Your task to perform on an android device: See recent photos Image 0: 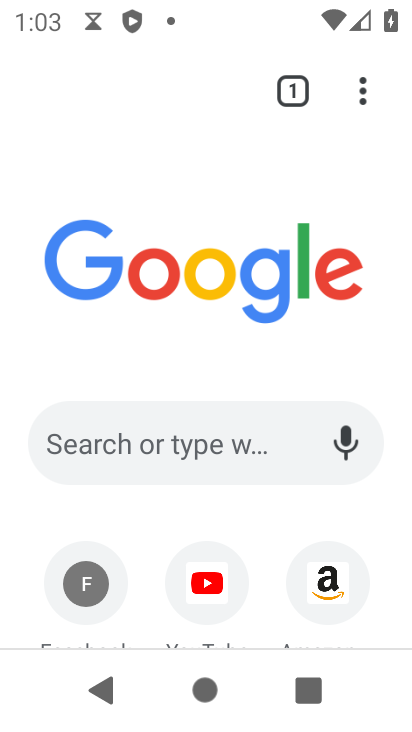
Step 0: press home button
Your task to perform on an android device: See recent photos Image 1: 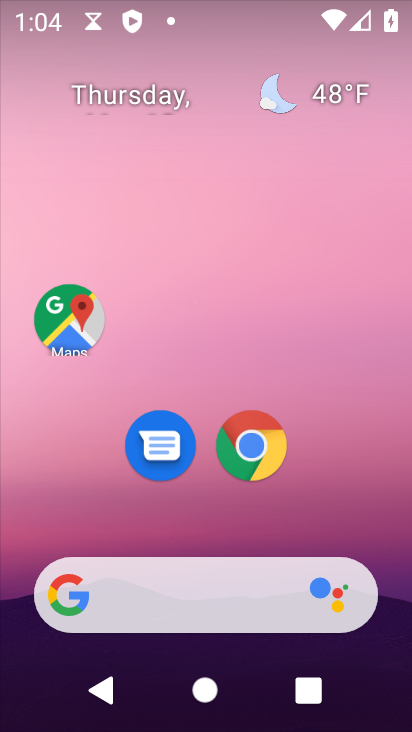
Step 1: drag from (314, 505) to (281, 77)
Your task to perform on an android device: See recent photos Image 2: 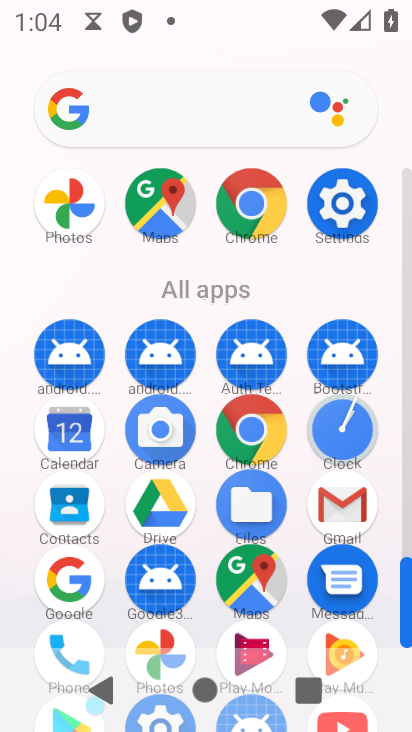
Step 2: click (168, 622)
Your task to perform on an android device: See recent photos Image 3: 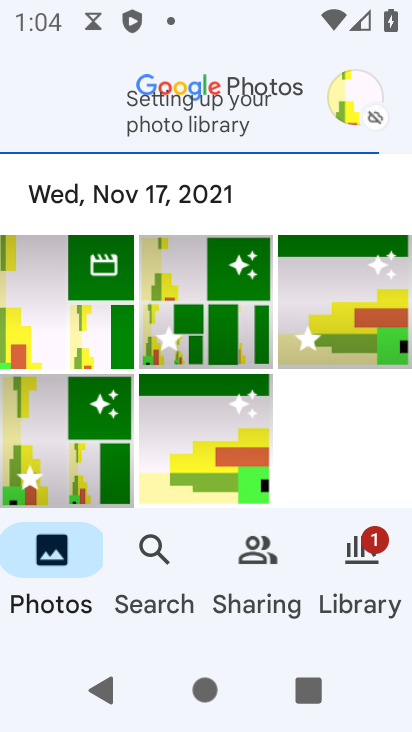
Step 3: click (153, 570)
Your task to perform on an android device: See recent photos Image 4: 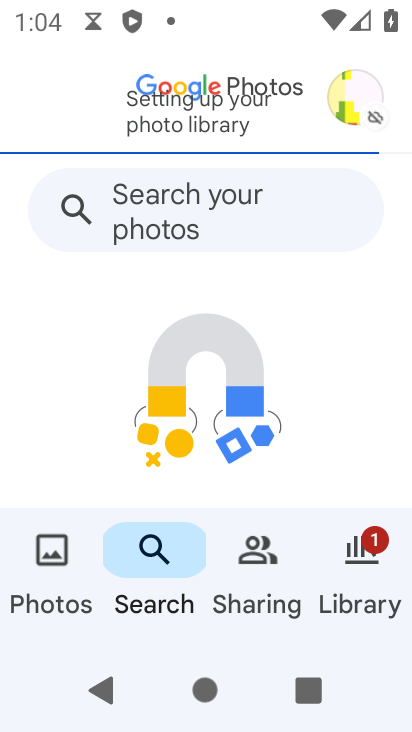
Step 4: drag from (119, 424) to (150, 127)
Your task to perform on an android device: See recent photos Image 5: 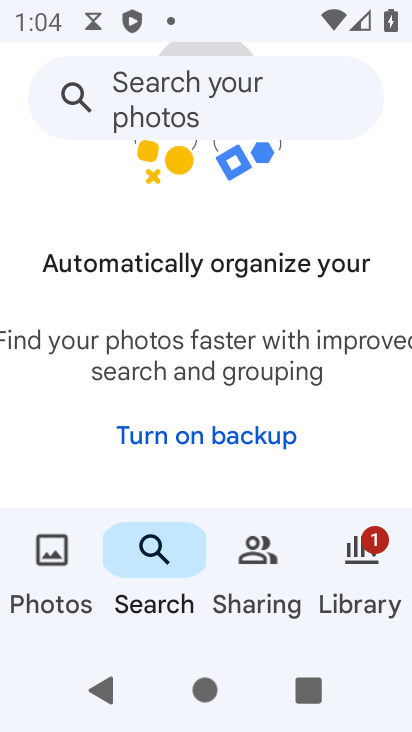
Step 5: drag from (184, 421) to (200, 108)
Your task to perform on an android device: See recent photos Image 6: 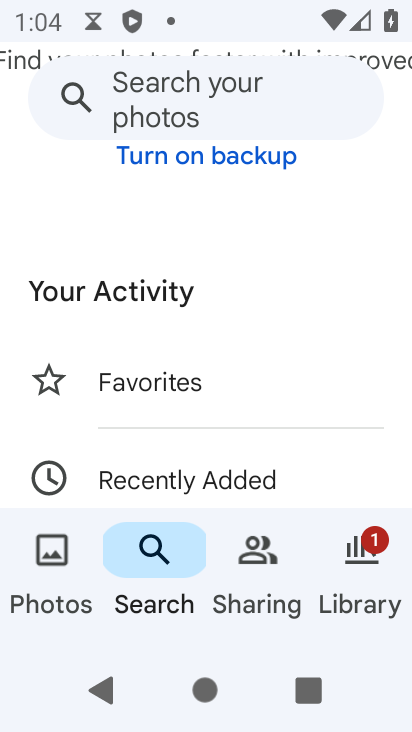
Step 6: drag from (229, 439) to (264, 211)
Your task to perform on an android device: See recent photos Image 7: 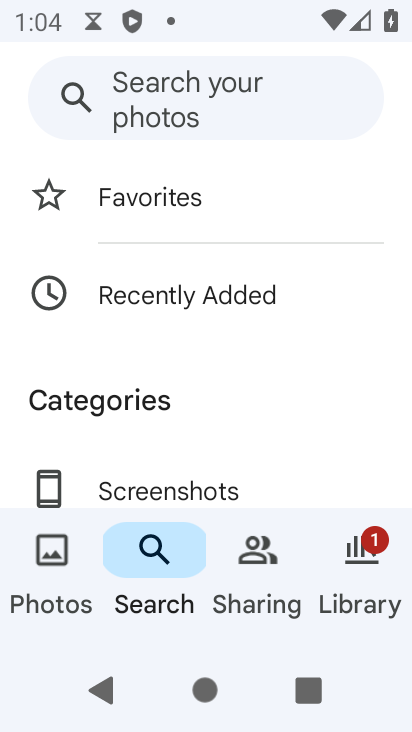
Step 7: click (218, 305)
Your task to perform on an android device: See recent photos Image 8: 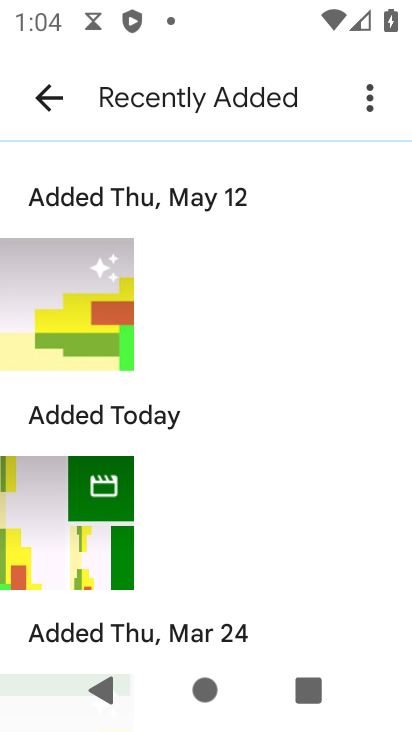
Step 8: task complete